Your task to perform on an android device: Open the contacts Image 0: 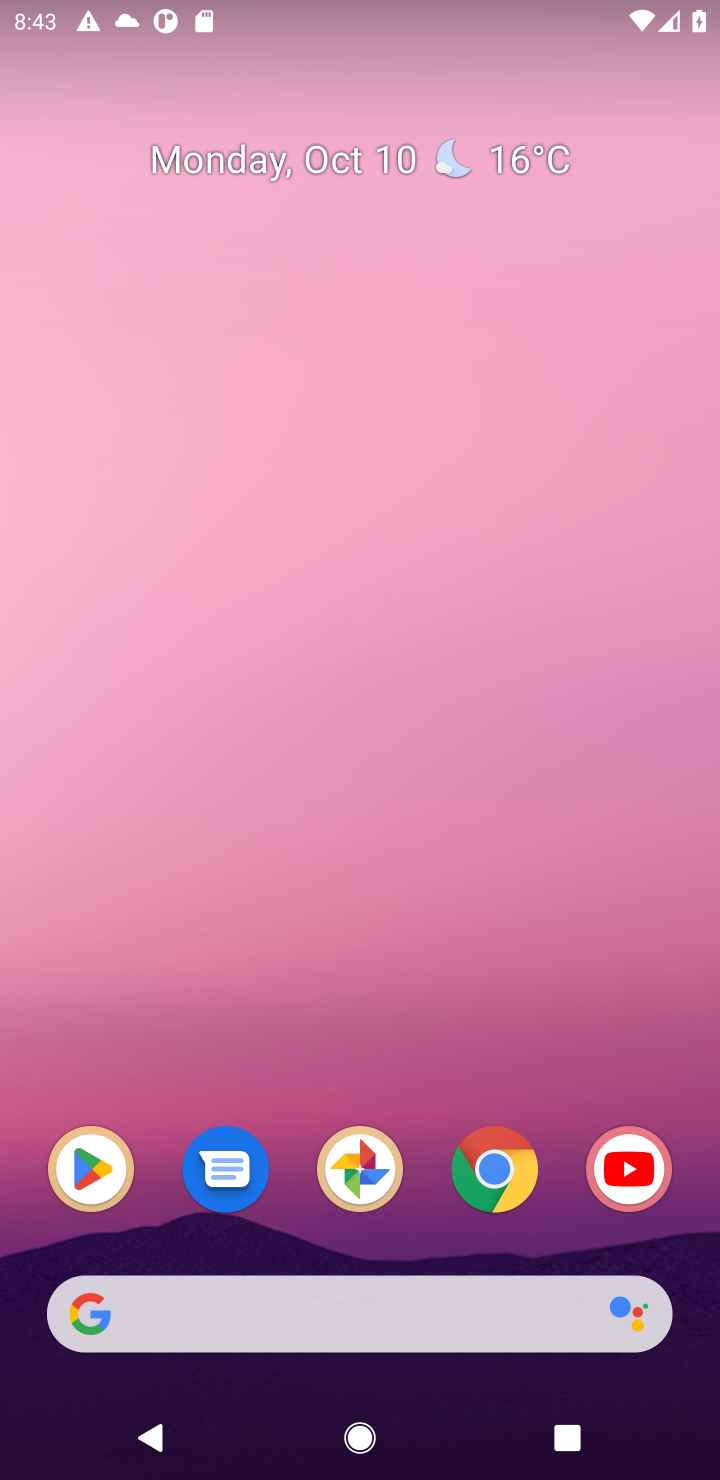
Step 0: drag from (290, 1239) to (405, 237)
Your task to perform on an android device: Open the contacts Image 1: 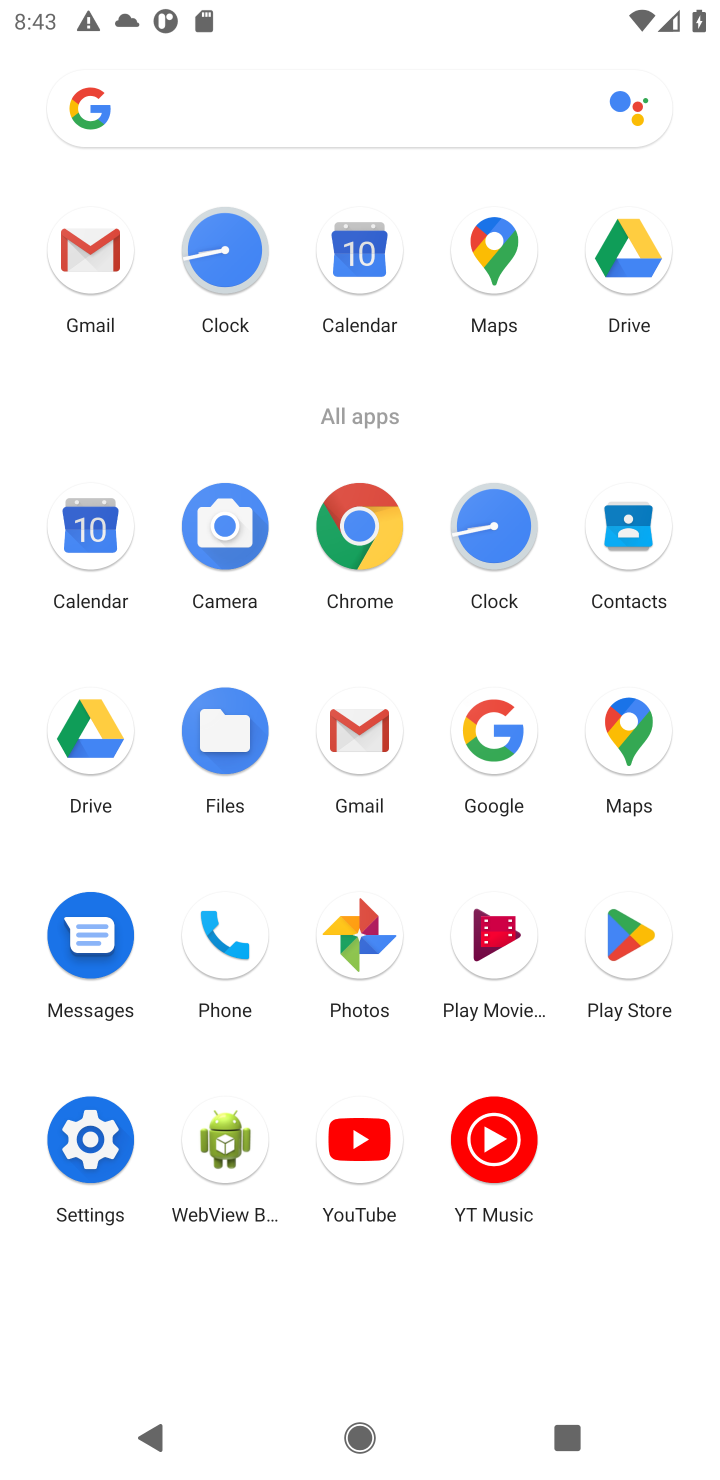
Step 1: click (647, 541)
Your task to perform on an android device: Open the contacts Image 2: 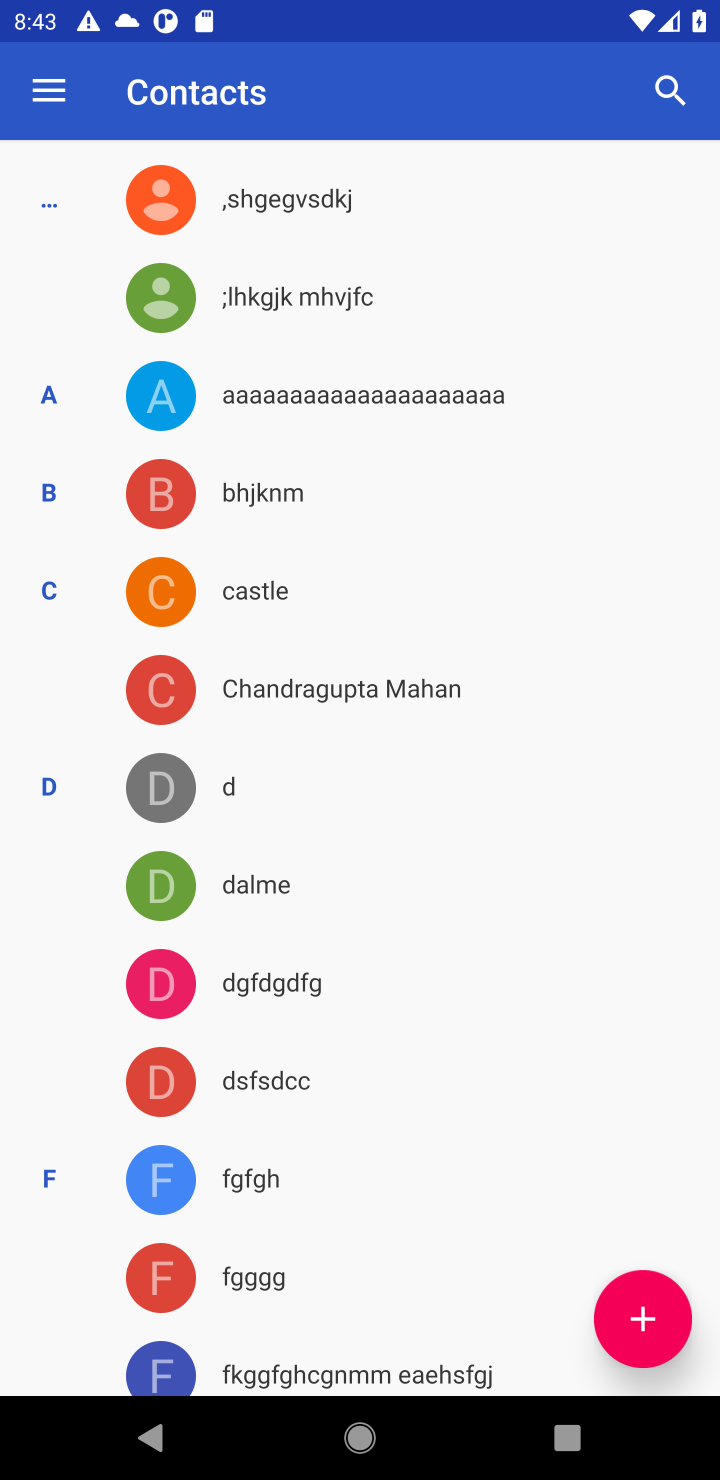
Step 2: task complete